Your task to perform on an android device: Find the nearest electronics store that's open now Image 0: 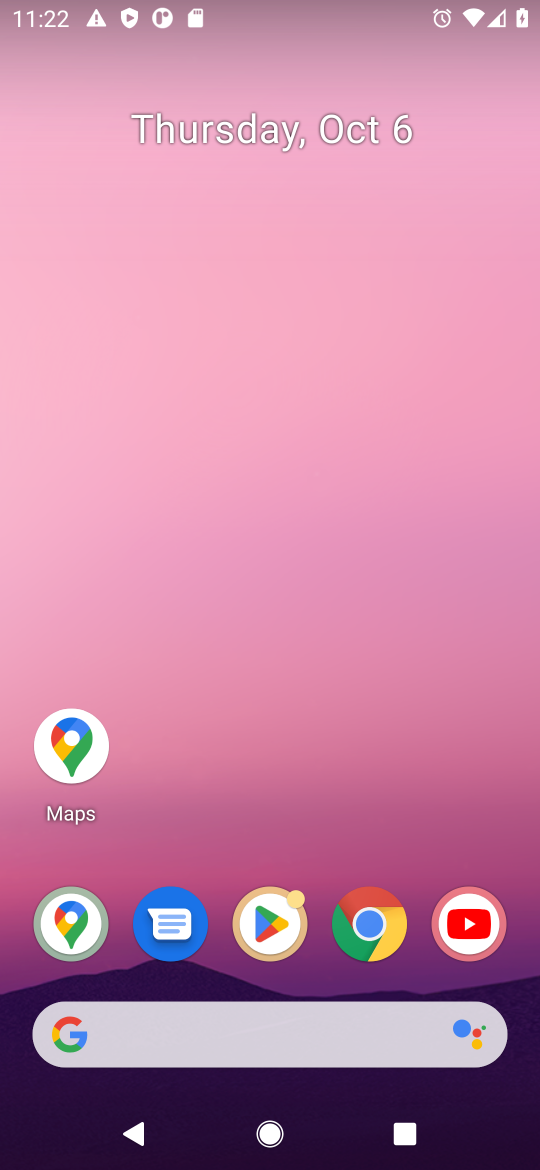
Step 0: click (373, 938)
Your task to perform on an android device: Find the nearest electronics store that's open now Image 1: 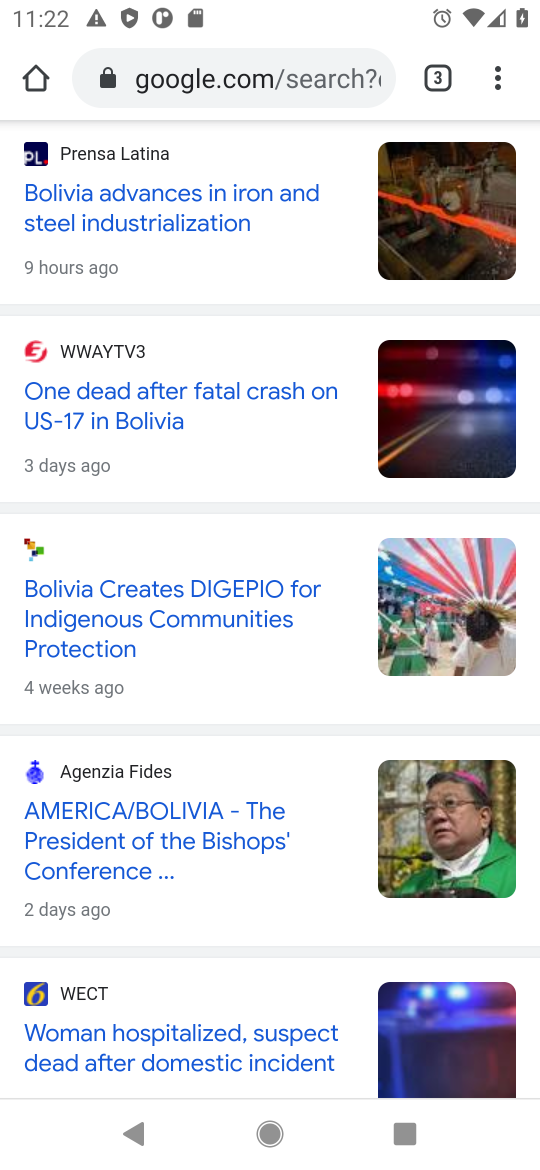
Step 1: click (278, 75)
Your task to perform on an android device: Find the nearest electronics store that's open now Image 2: 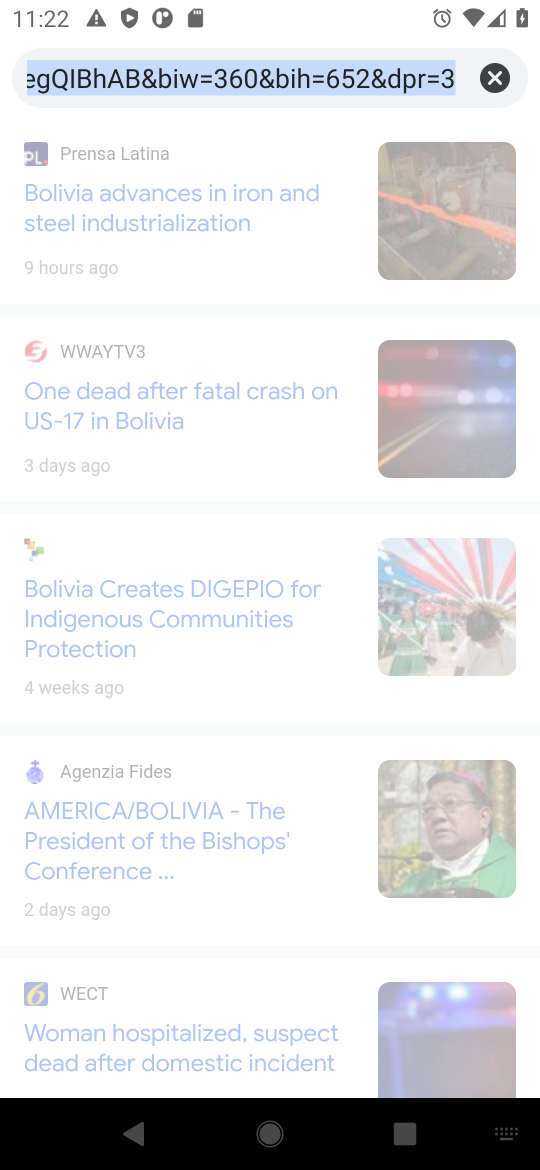
Step 2: click (494, 76)
Your task to perform on an android device: Find the nearest electronics store that's open now Image 3: 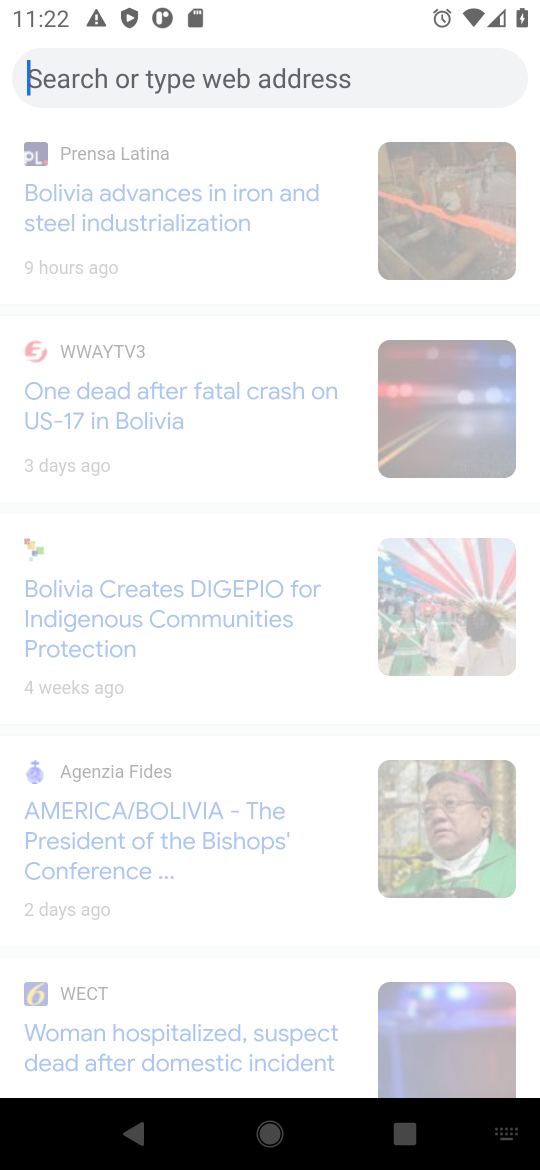
Step 3: type "nearest electronics store that's open now"
Your task to perform on an android device: Find the nearest electronics store that's open now Image 4: 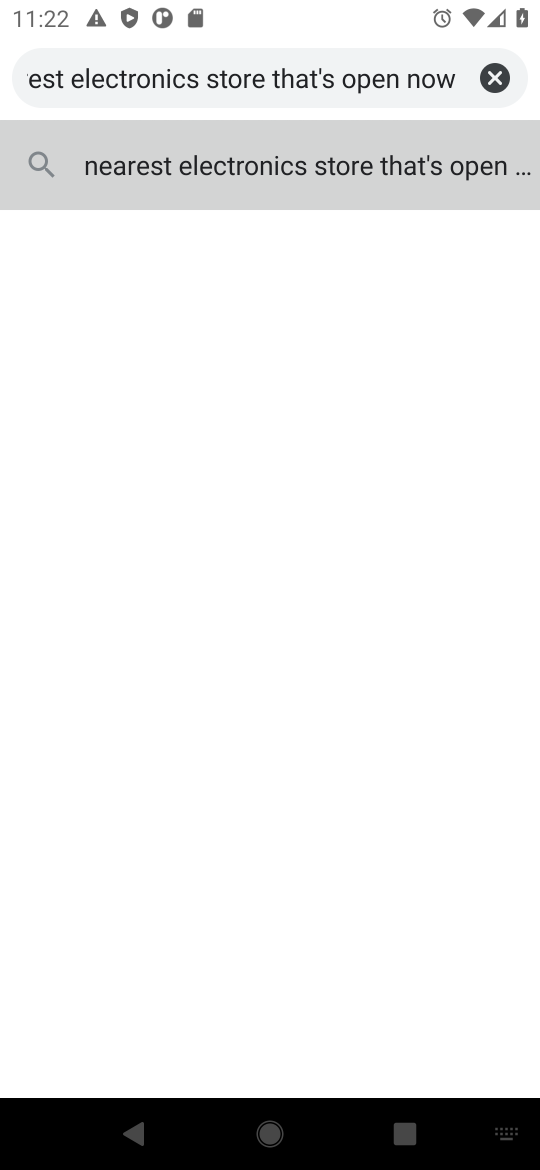
Step 4: click (295, 172)
Your task to perform on an android device: Find the nearest electronics store that's open now Image 5: 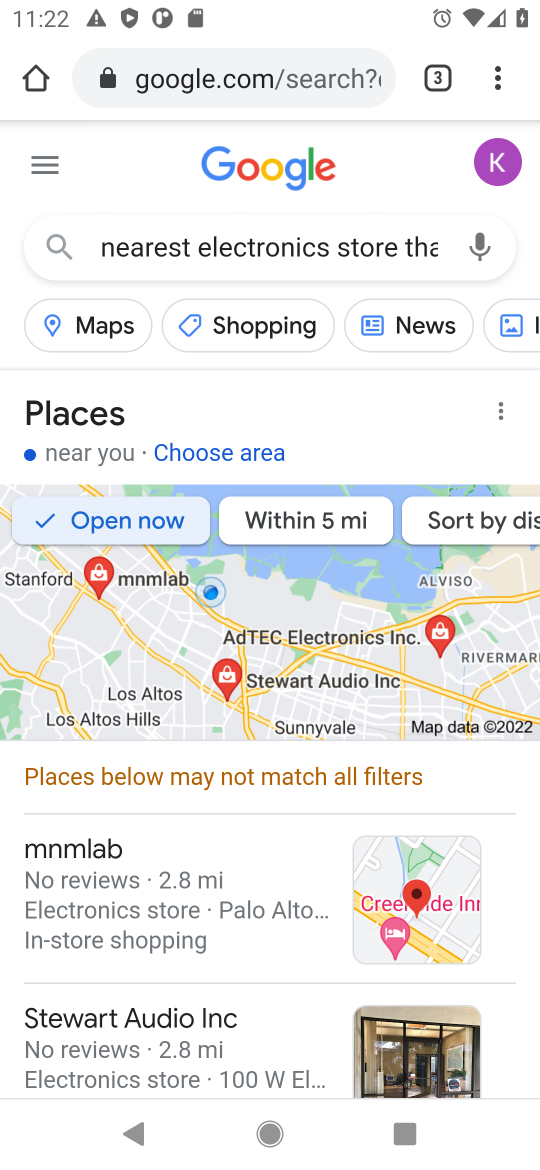
Step 5: drag from (223, 1009) to (354, 607)
Your task to perform on an android device: Find the nearest electronics store that's open now Image 6: 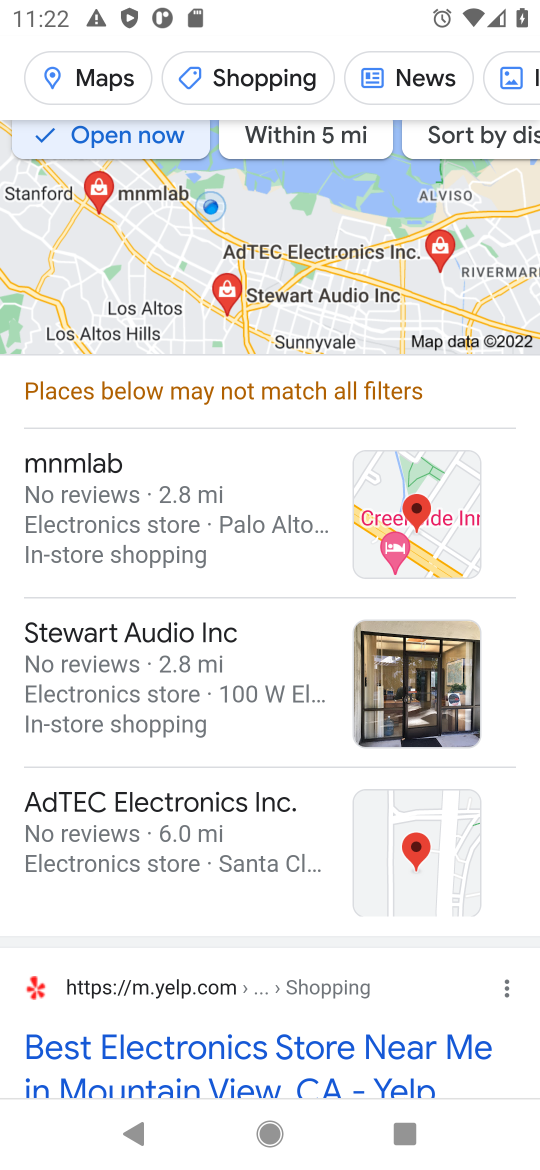
Step 6: click (164, 528)
Your task to perform on an android device: Find the nearest electronics store that's open now Image 7: 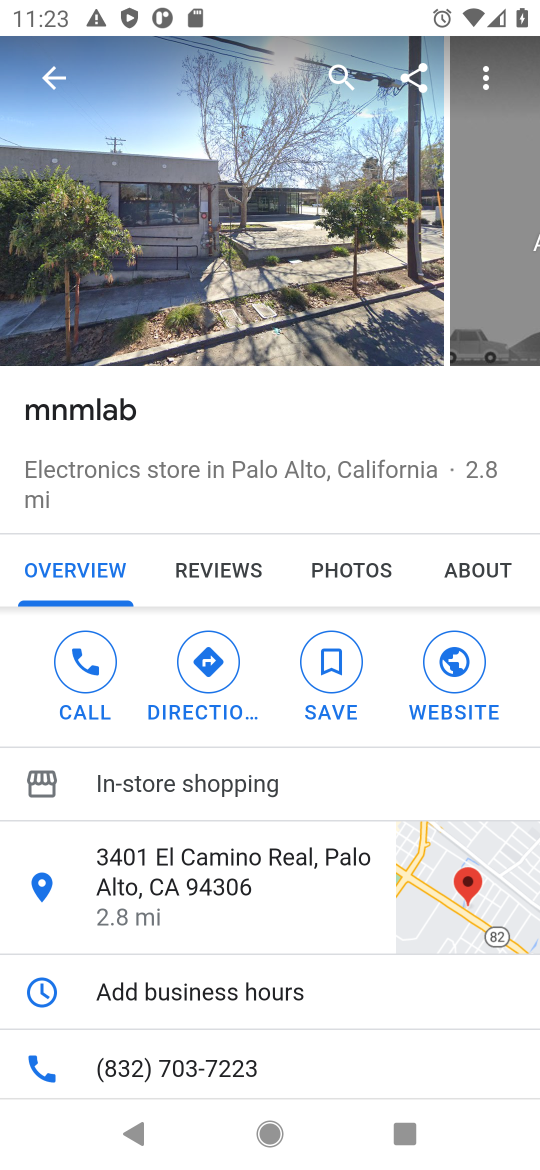
Step 7: task complete